Your task to perform on an android device: Go to Android settings Image 0: 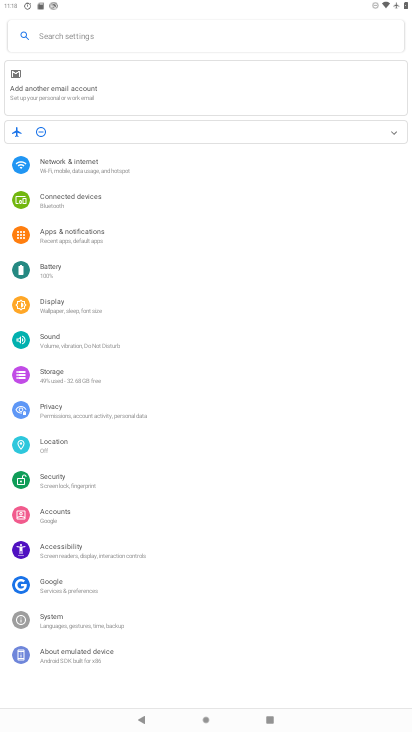
Step 0: click (81, 652)
Your task to perform on an android device: Go to Android settings Image 1: 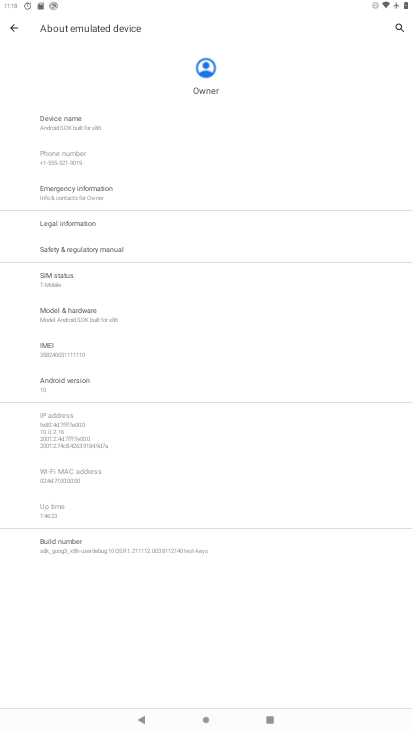
Step 1: task complete